Your task to perform on an android device: Clear the cart on amazon.com. Image 0: 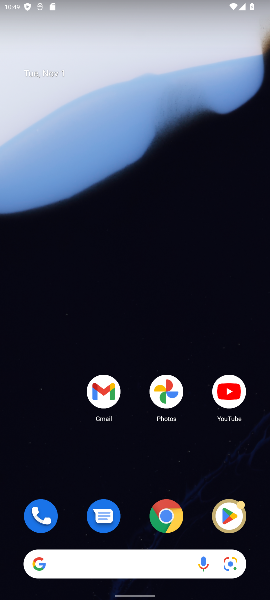
Step 0: click (168, 515)
Your task to perform on an android device: Clear the cart on amazon.com. Image 1: 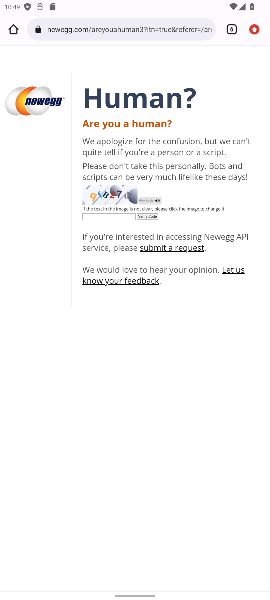
Step 1: click (234, 26)
Your task to perform on an android device: Clear the cart on amazon.com. Image 2: 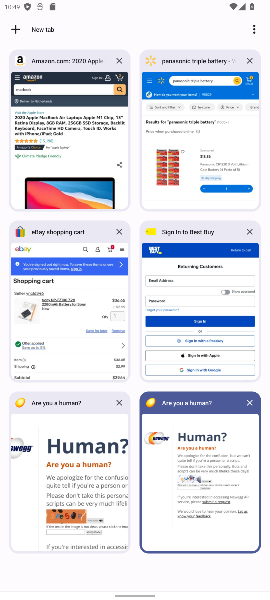
Step 2: click (43, 131)
Your task to perform on an android device: Clear the cart on amazon.com. Image 3: 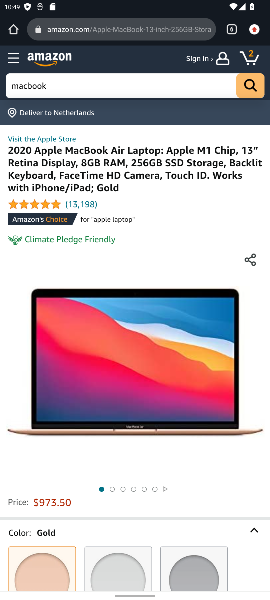
Step 3: click (250, 55)
Your task to perform on an android device: Clear the cart on amazon.com. Image 4: 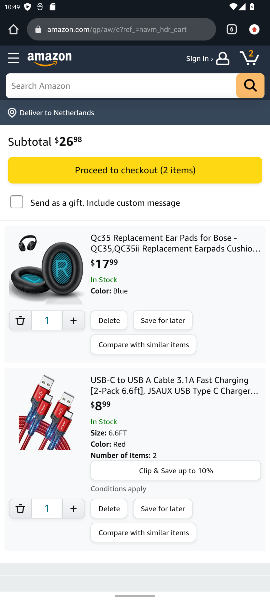
Step 4: click (105, 319)
Your task to perform on an android device: Clear the cart on amazon.com. Image 5: 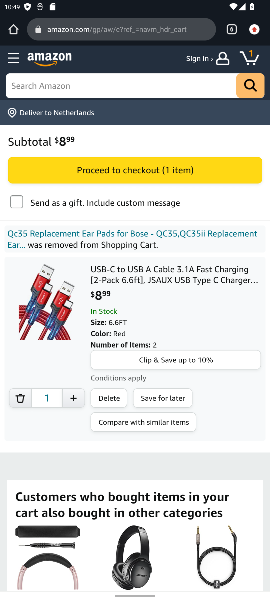
Step 5: click (112, 397)
Your task to perform on an android device: Clear the cart on amazon.com. Image 6: 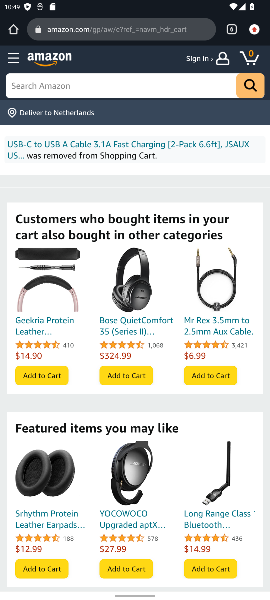
Step 6: task complete